Your task to perform on an android device: Search for Italian restaurants on Maps Image 0: 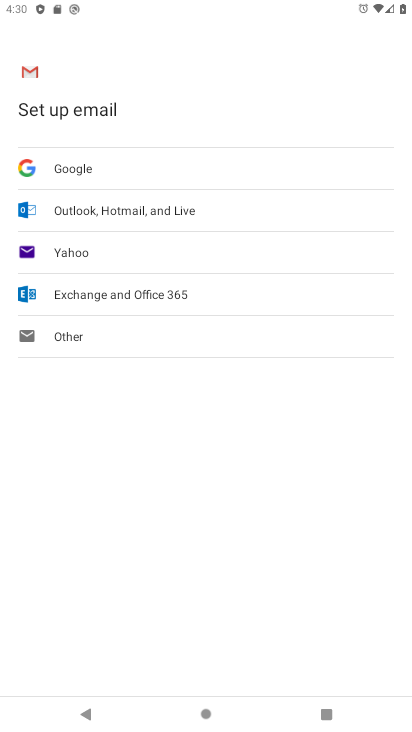
Step 0: click (201, 716)
Your task to perform on an android device: Search for Italian restaurants on Maps Image 1: 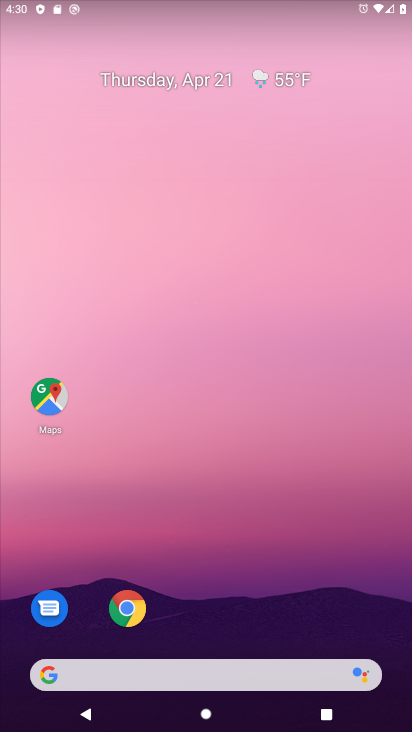
Step 1: click (56, 409)
Your task to perform on an android device: Search for Italian restaurants on Maps Image 2: 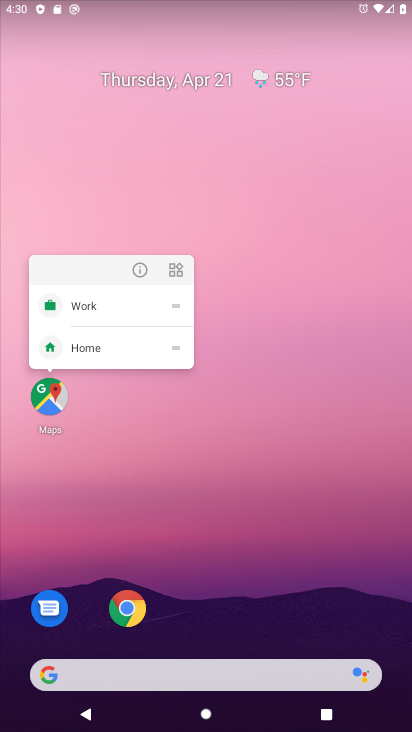
Step 2: click (56, 409)
Your task to perform on an android device: Search for Italian restaurants on Maps Image 3: 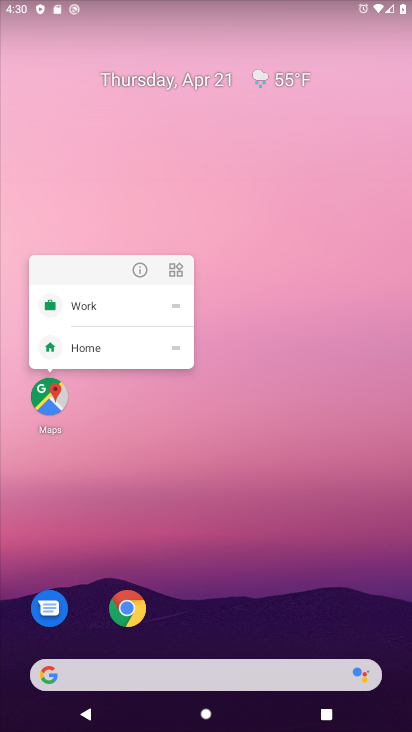
Step 3: click (204, 442)
Your task to perform on an android device: Search for Italian restaurants on Maps Image 4: 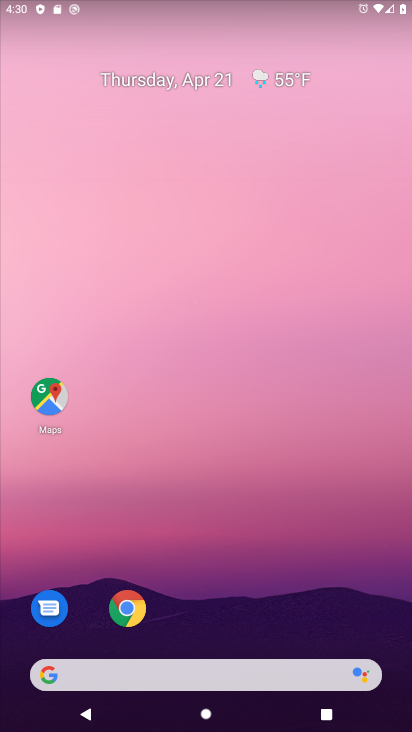
Step 4: click (47, 406)
Your task to perform on an android device: Search for Italian restaurants on Maps Image 5: 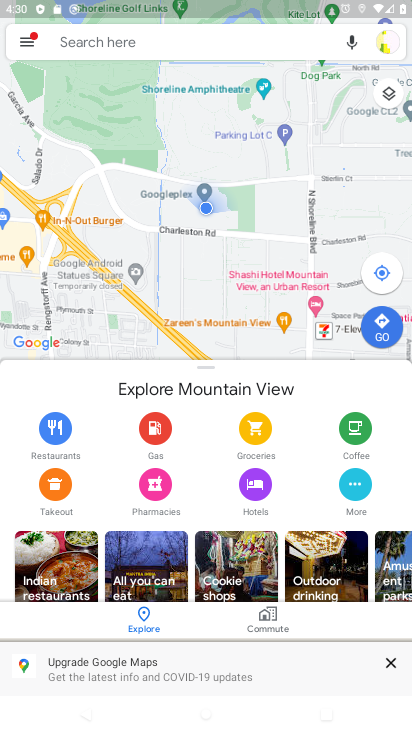
Step 5: click (117, 33)
Your task to perform on an android device: Search for Italian restaurants on Maps Image 6: 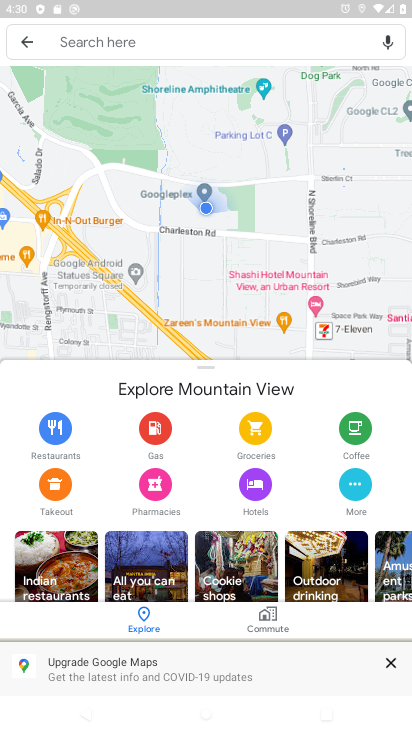
Step 6: click (114, 37)
Your task to perform on an android device: Search for Italian restaurants on Maps Image 7: 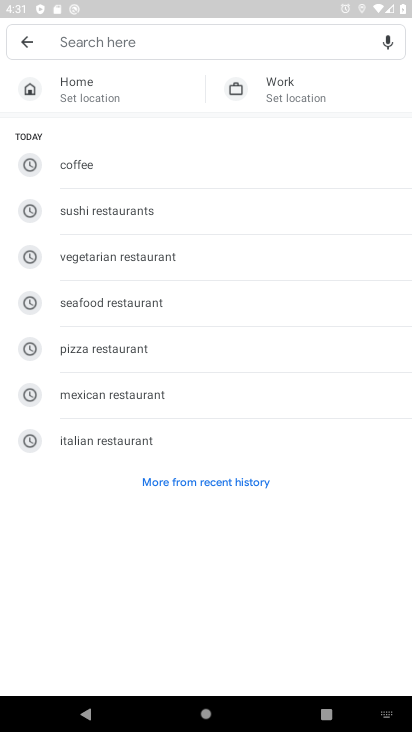
Step 7: type "ltaloian restaurants"
Your task to perform on an android device: Search for Italian restaurants on Maps Image 8: 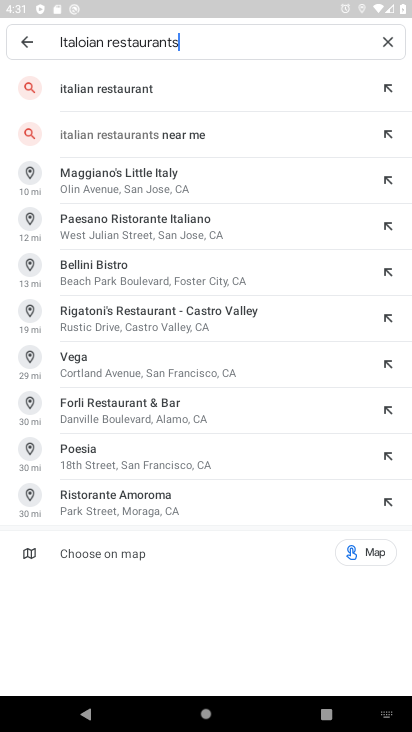
Step 8: task complete